Your task to perform on an android device: change the clock display to analog Image 0: 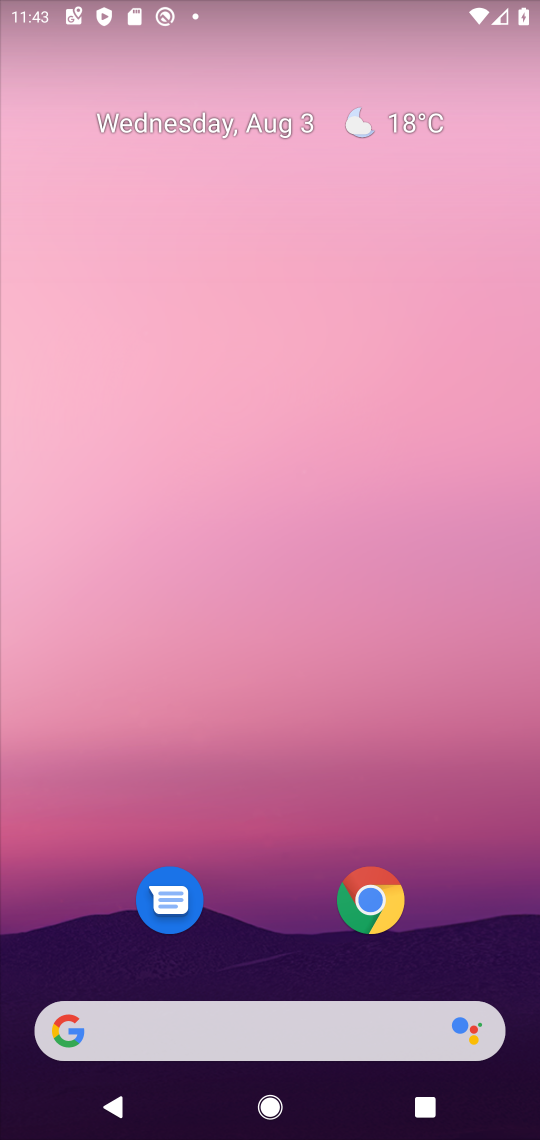
Step 0: press home button
Your task to perform on an android device: change the clock display to analog Image 1: 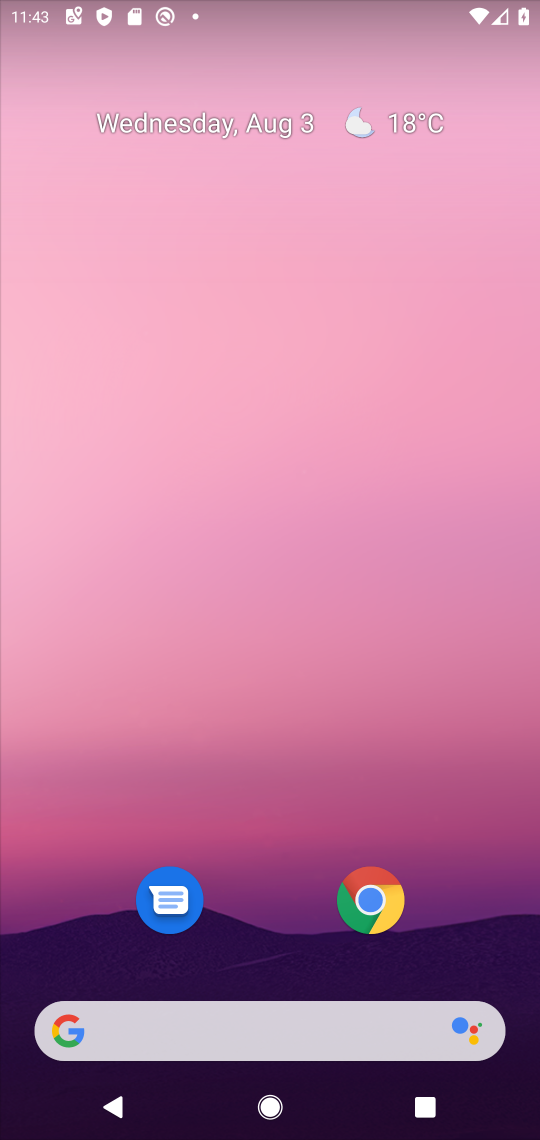
Step 1: drag from (272, 738) to (322, 132)
Your task to perform on an android device: change the clock display to analog Image 2: 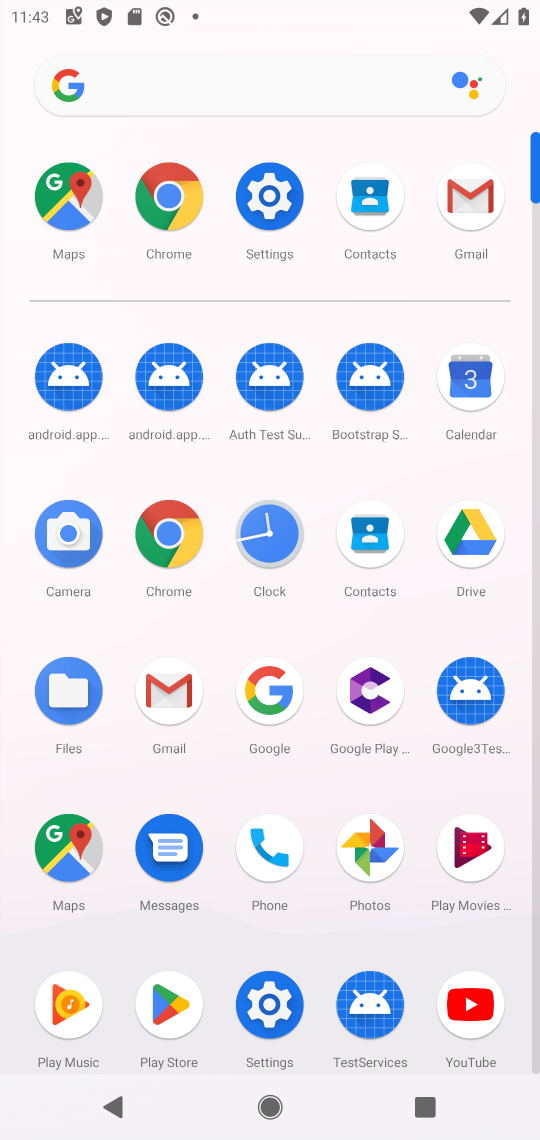
Step 2: click (272, 556)
Your task to perform on an android device: change the clock display to analog Image 3: 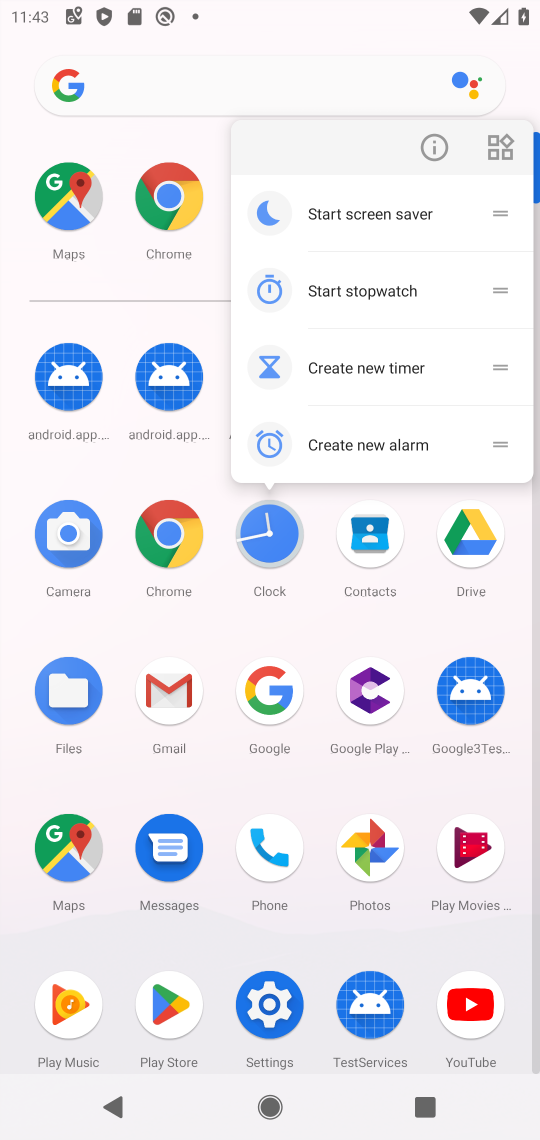
Step 3: click (272, 556)
Your task to perform on an android device: change the clock display to analog Image 4: 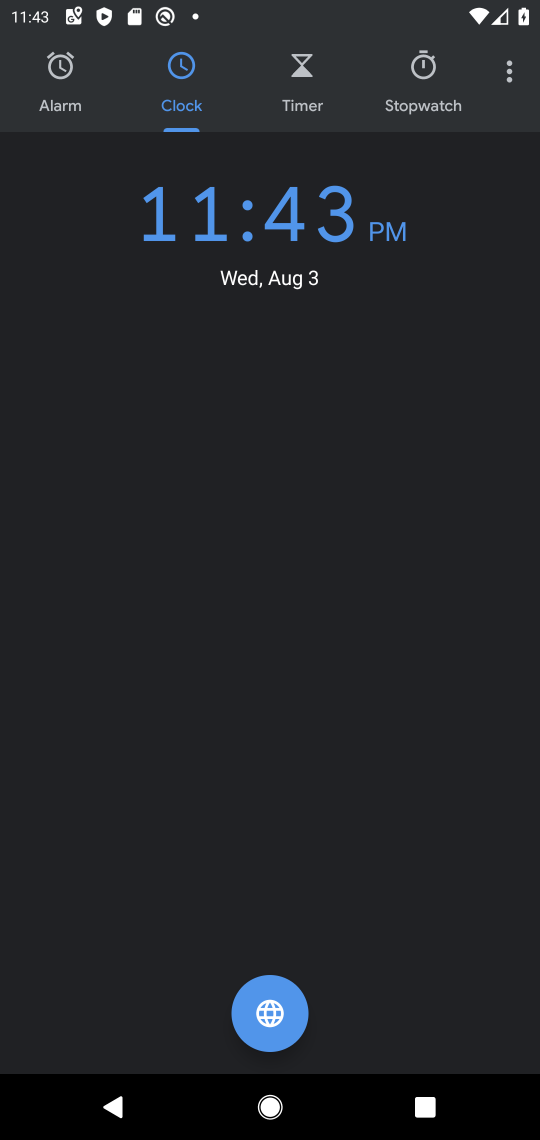
Step 4: click (511, 79)
Your task to perform on an android device: change the clock display to analog Image 5: 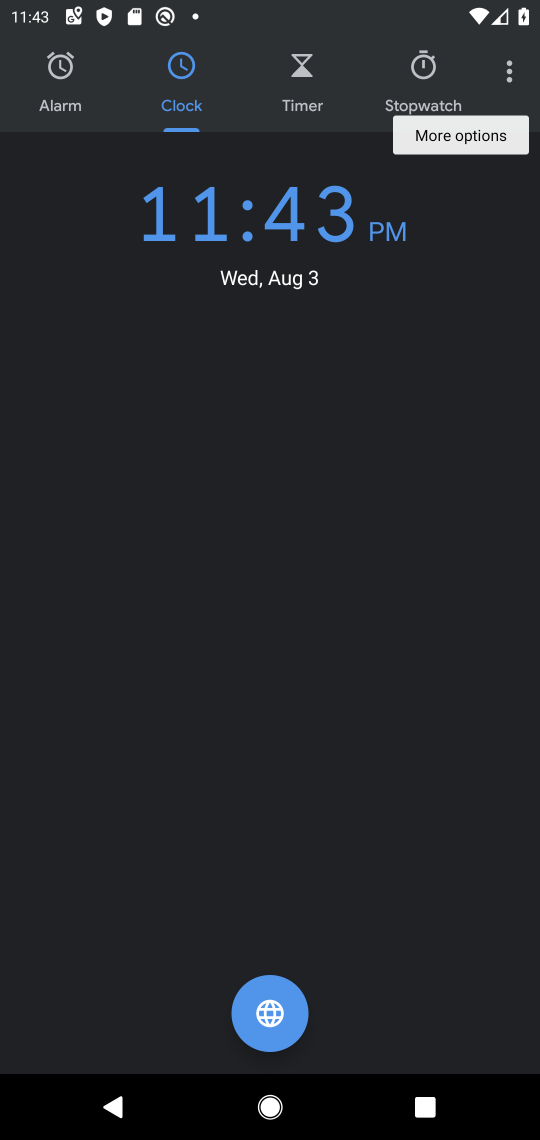
Step 5: click (511, 81)
Your task to perform on an android device: change the clock display to analog Image 6: 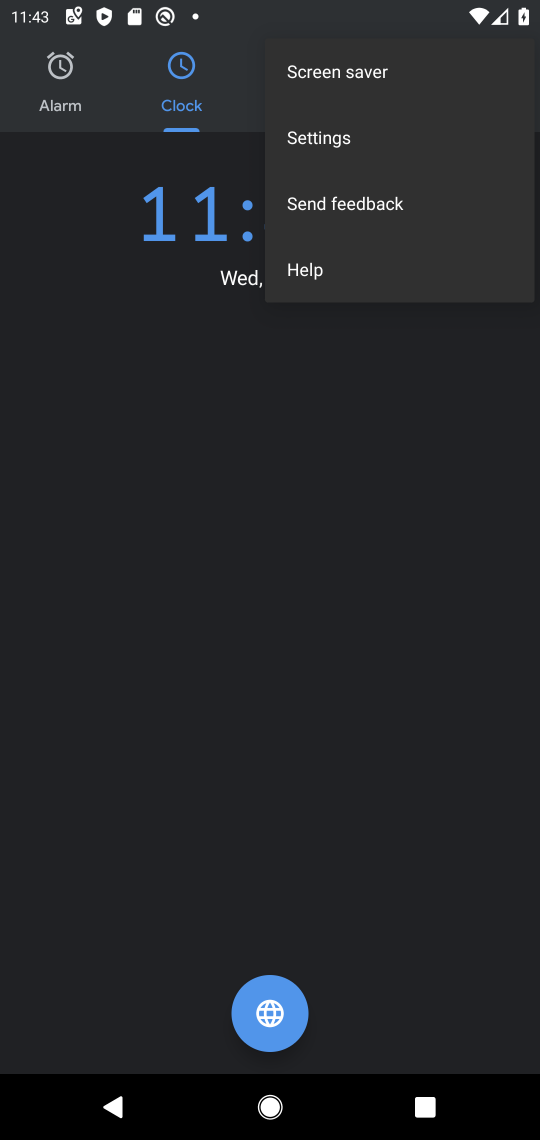
Step 6: click (334, 139)
Your task to perform on an android device: change the clock display to analog Image 7: 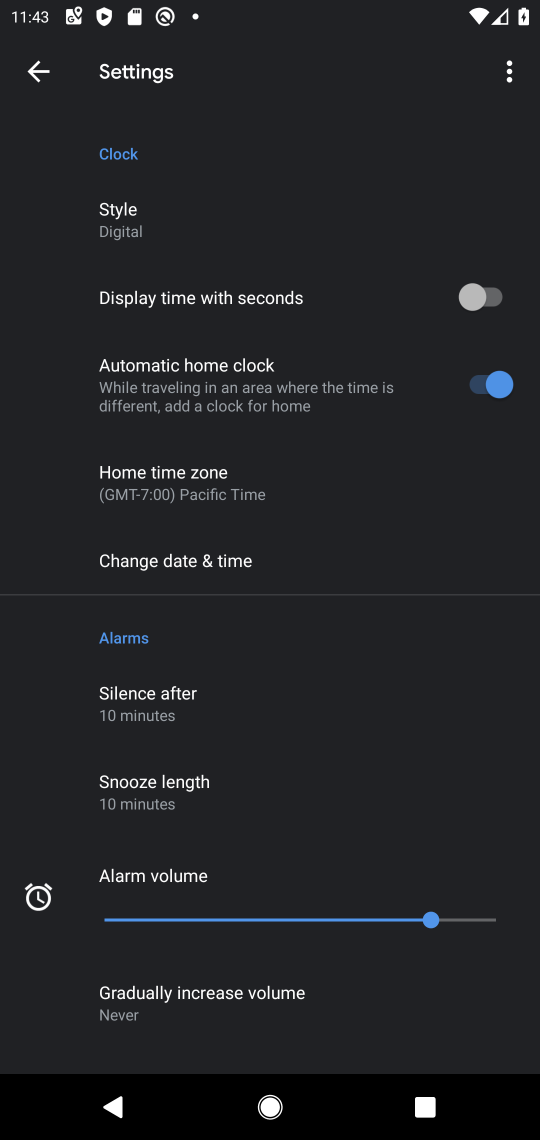
Step 7: click (148, 232)
Your task to perform on an android device: change the clock display to analog Image 8: 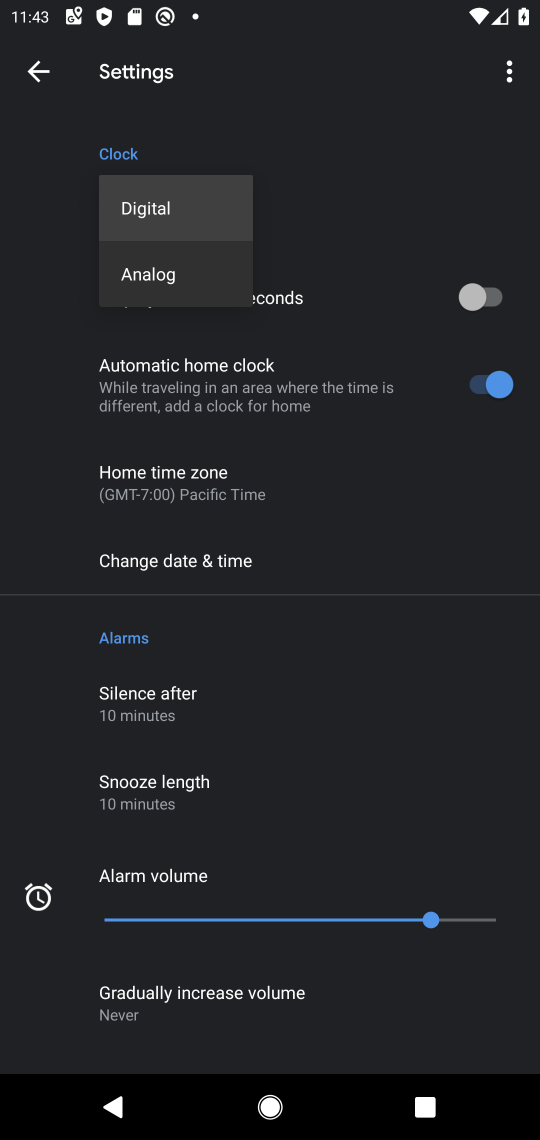
Step 8: click (169, 279)
Your task to perform on an android device: change the clock display to analog Image 9: 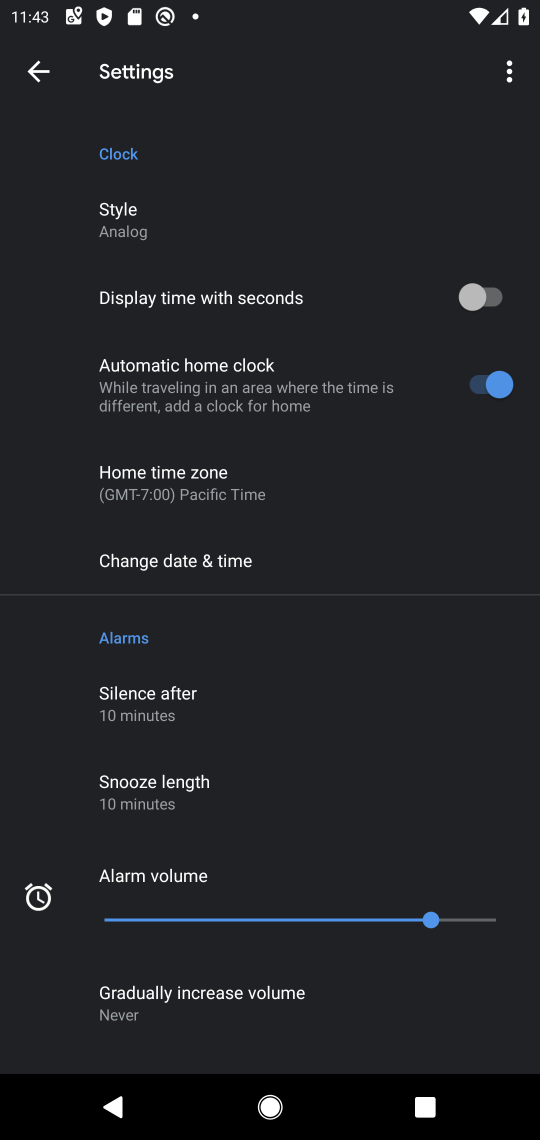
Step 9: task complete